Your task to perform on an android device: find snoozed emails in the gmail app Image 0: 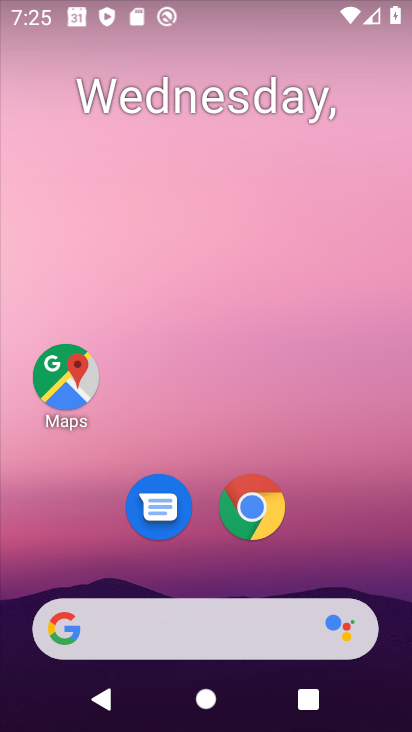
Step 0: drag from (289, 635) to (312, 186)
Your task to perform on an android device: find snoozed emails in the gmail app Image 1: 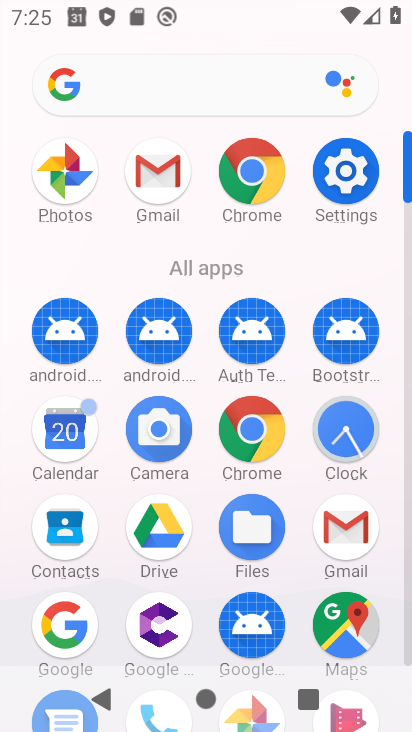
Step 1: click (323, 531)
Your task to perform on an android device: find snoozed emails in the gmail app Image 2: 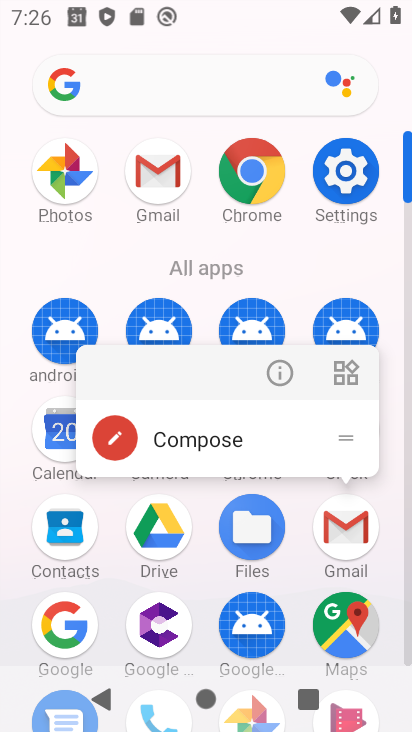
Step 2: click (338, 524)
Your task to perform on an android device: find snoozed emails in the gmail app Image 3: 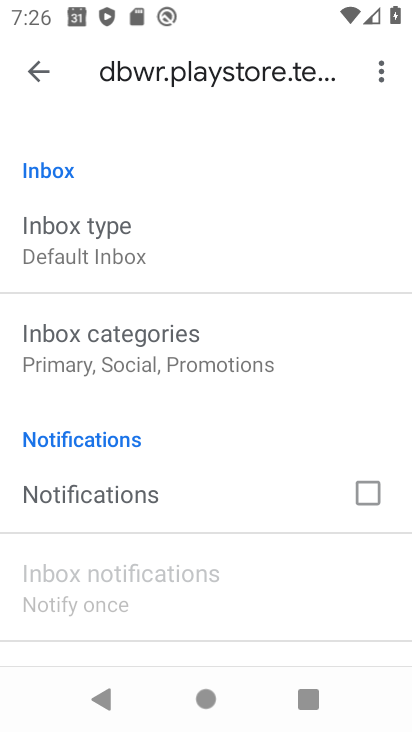
Step 3: click (24, 75)
Your task to perform on an android device: find snoozed emails in the gmail app Image 4: 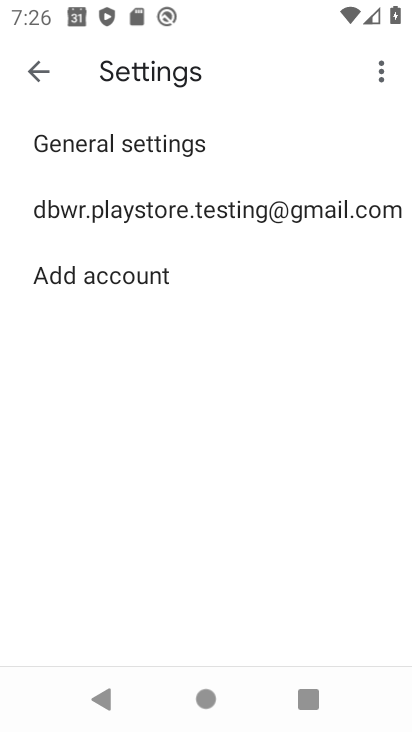
Step 4: click (30, 76)
Your task to perform on an android device: find snoozed emails in the gmail app Image 5: 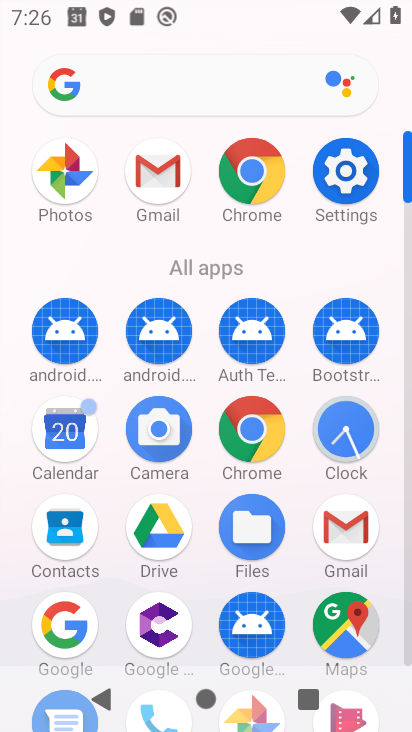
Step 5: click (153, 185)
Your task to perform on an android device: find snoozed emails in the gmail app Image 6: 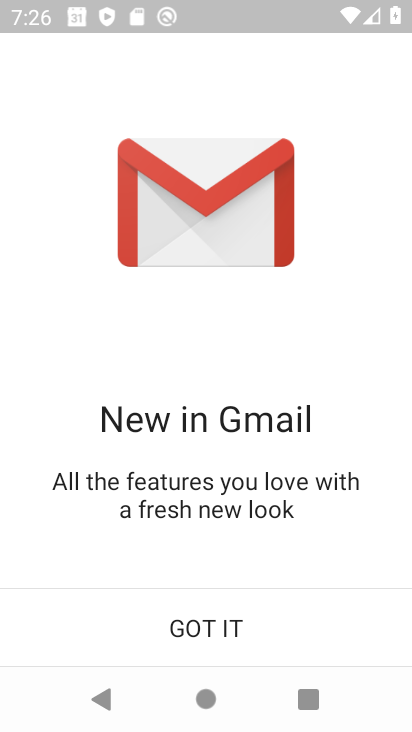
Step 6: click (207, 625)
Your task to perform on an android device: find snoozed emails in the gmail app Image 7: 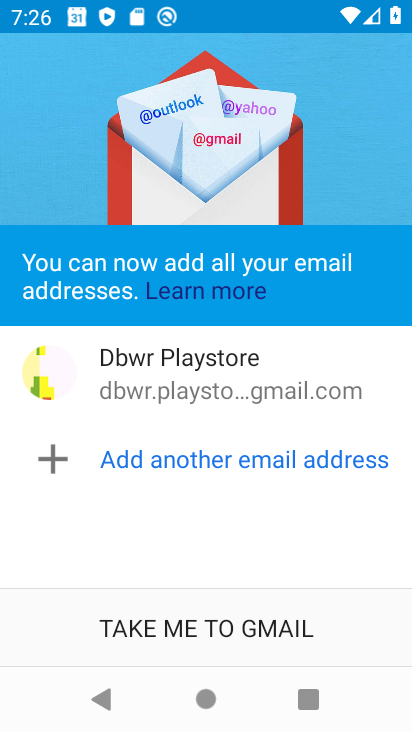
Step 7: click (211, 617)
Your task to perform on an android device: find snoozed emails in the gmail app Image 8: 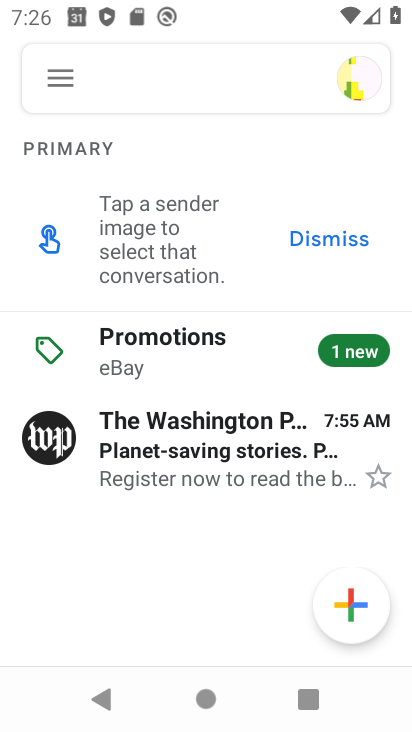
Step 8: click (351, 234)
Your task to perform on an android device: find snoozed emails in the gmail app Image 9: 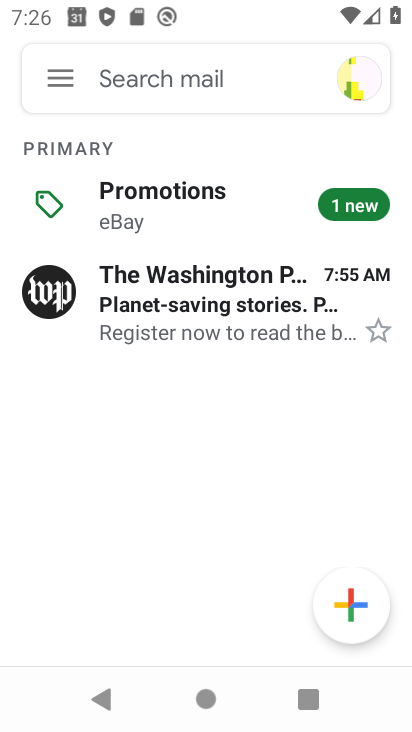
Step 9: click (57, 77)
Your task to perform on an android device: find snoozed emails in the gmail app Image 10: 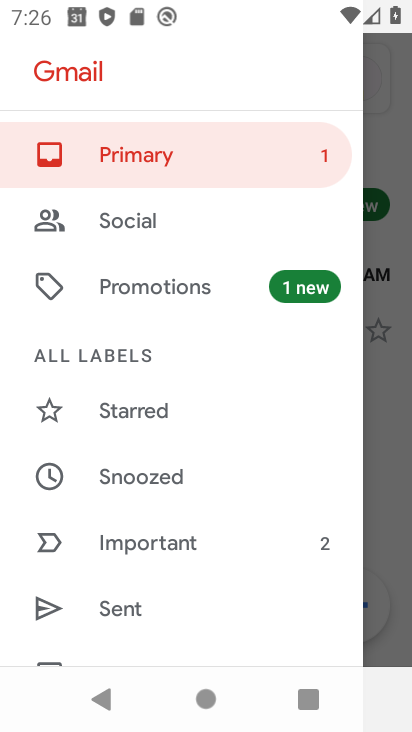
Step 10: click (124, 472)
Your task to perform on an android device: find snoozed emails in the gmail app Image 11: 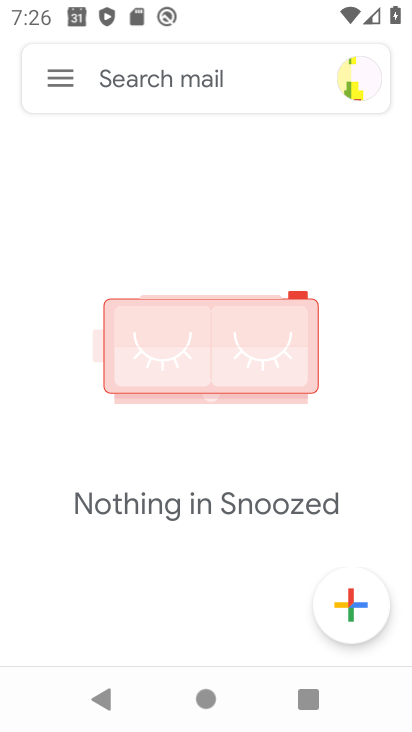
Step 11: task complete